Your task to perform on an android device: turn off javascript in the chrome app Image 0: 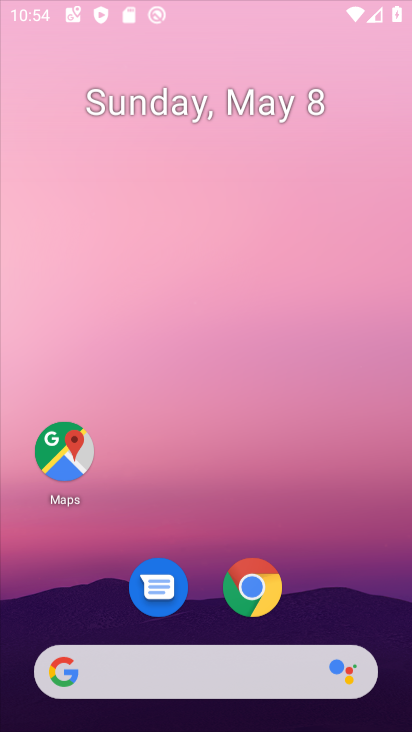
Step 0: click (342, 433)
Your task to perform on an android device: turn off javascript in the chrome app Image 1: 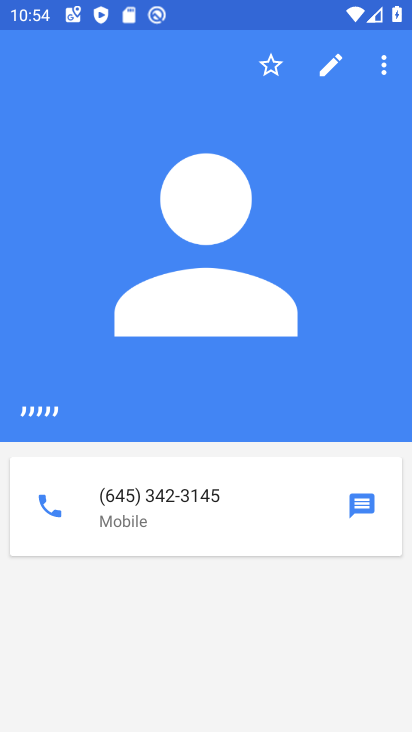
Step 1: press home button
Your task to perform on an android device: turn off javascript in the chrome app Image 2: 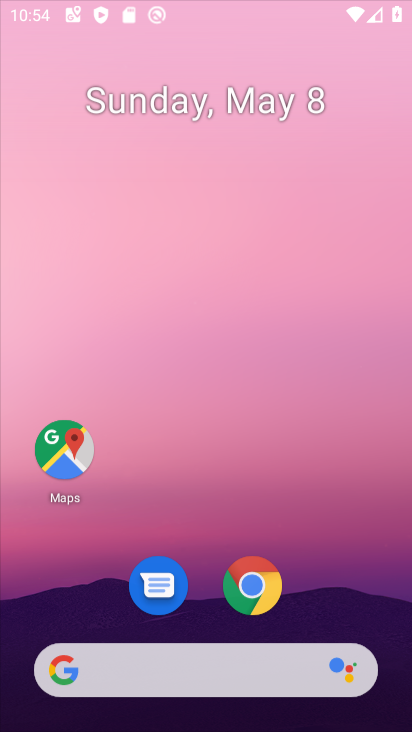
Step 2: press home button
Your task to perform on an android device: turn off javascript in the chrome app Image 3: 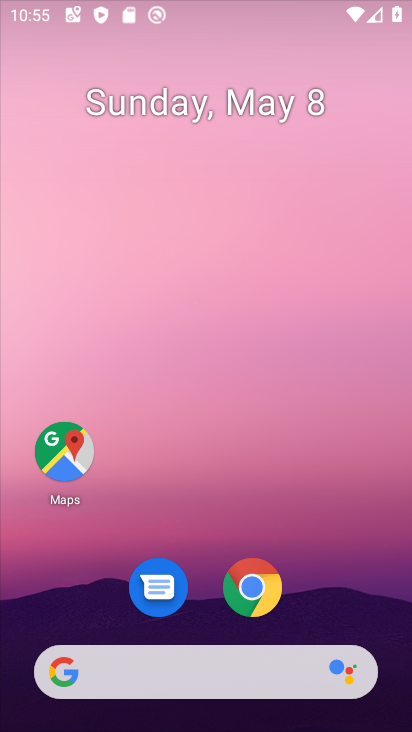
Step 3: press home button
Your task to perform on an android device: turn off javascript in the chrome app Image 4: 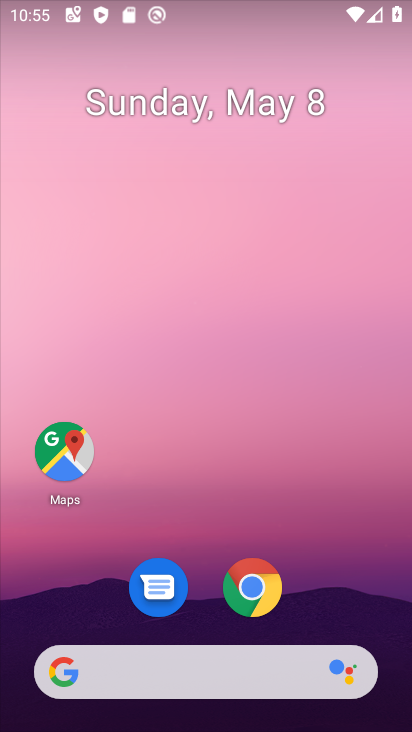
Step 4: drag from (377, 609) to (147, 10)
Your task to perform on an android device: turn off javascript in the chrome app Image 5: 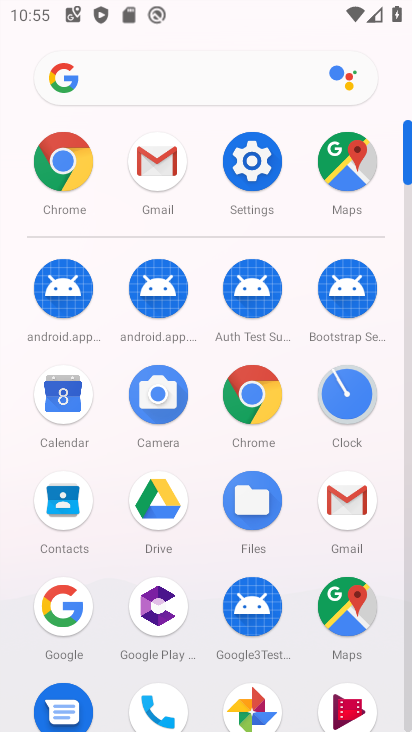
Step 5: click (67, 154)
Your task to perform on an android device: turn off javascript in the chrome app Image 6: 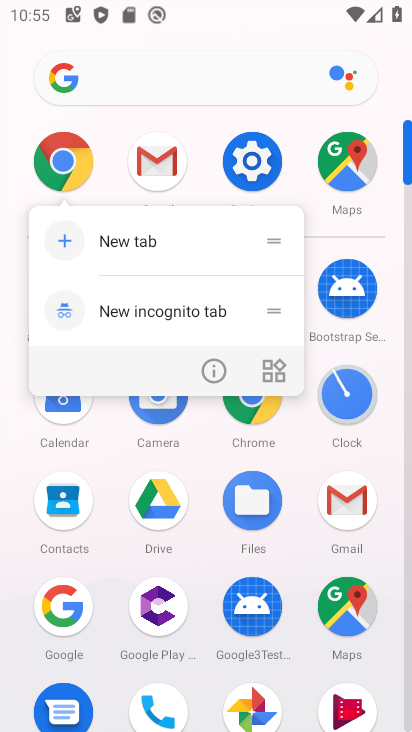
Step 6: click (67, 154)
Your task to perform on an android device: turn off javascript in the chrome app Image 7: 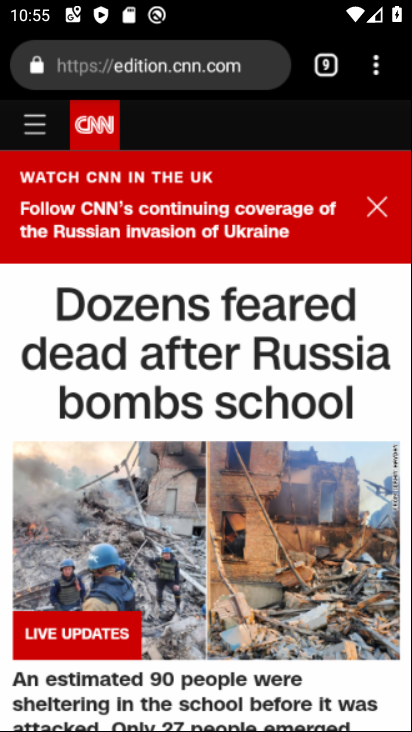
Step 7: click (76, 165)
Your task to perform on an android device: turn off javascript in the chrome app Image 8: 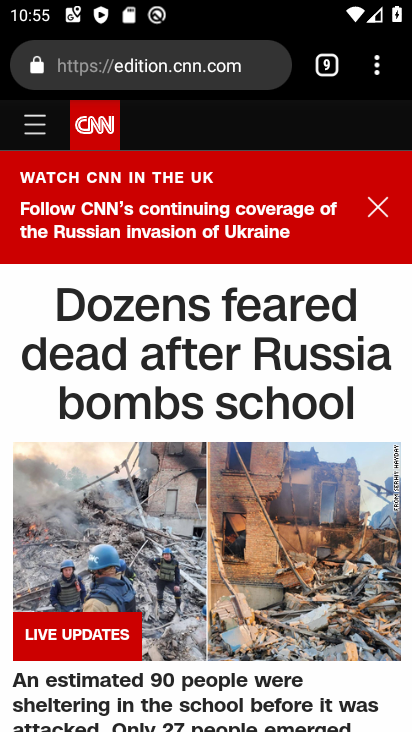
Step 8: drag from (378, 64) to (157, 640)
Your task to perform on an android device: turn off javascript in the chrome app Image 9: 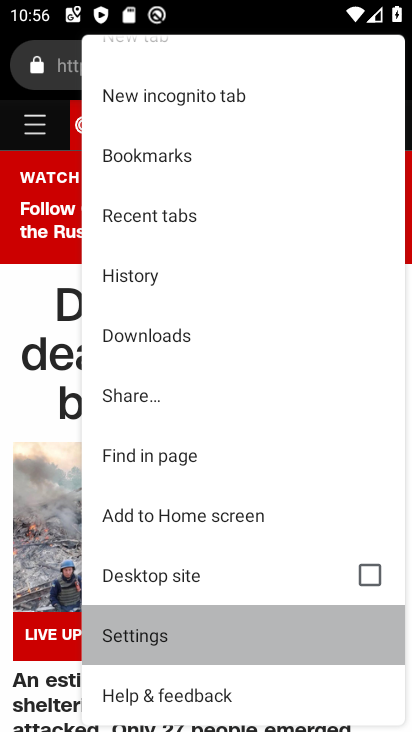
Step 9: click (142, 637)
Your task to perform on an android device: turn off javascript in the chrome app Image 10: 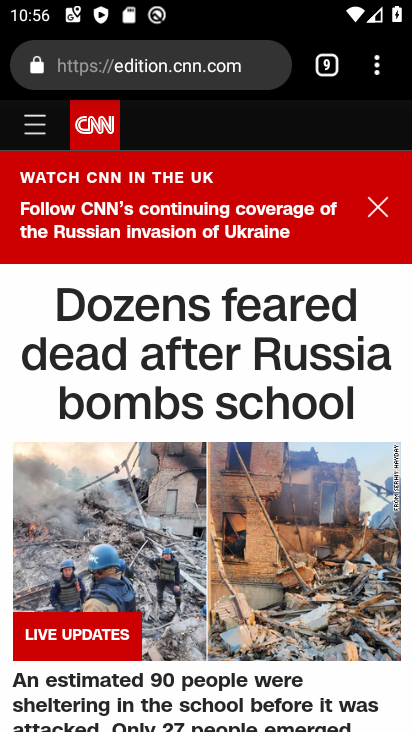
Step 10: click (142, 637)
Your task to perform on an android device: turn off javascript in the chrome app Image 11: 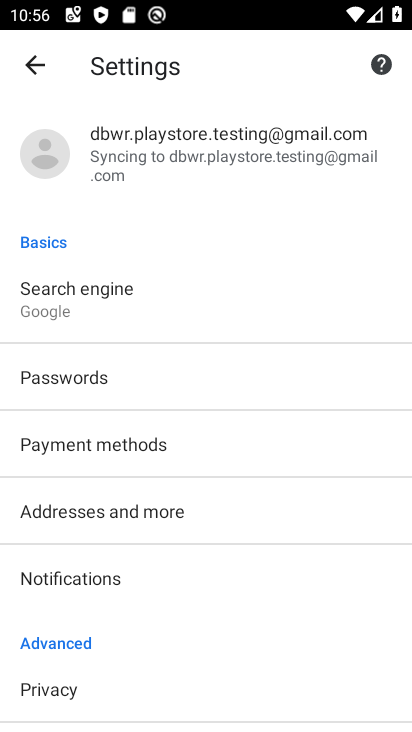
Step 11: drag from (163, 652) to (132, 73)
Your task to perform on an android device: turn off javascript in the chrome app Image 12: 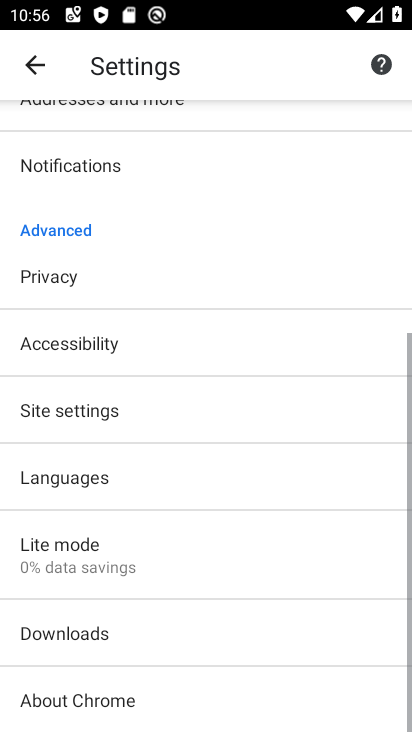
Step 12: drag from (204, 446) to (221, 120)
Your task to perform on an android device: turn off javascript in the chrome app Image 13: 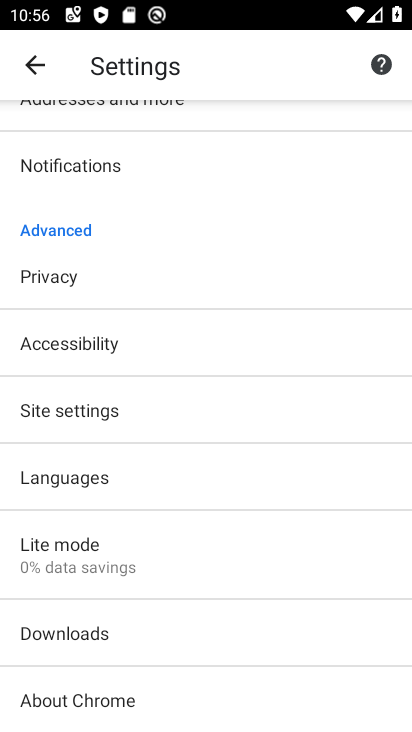
Step 13: click (61, 412)
Your task to perform on an android device: turn off javascript in the chrome app Image 14: 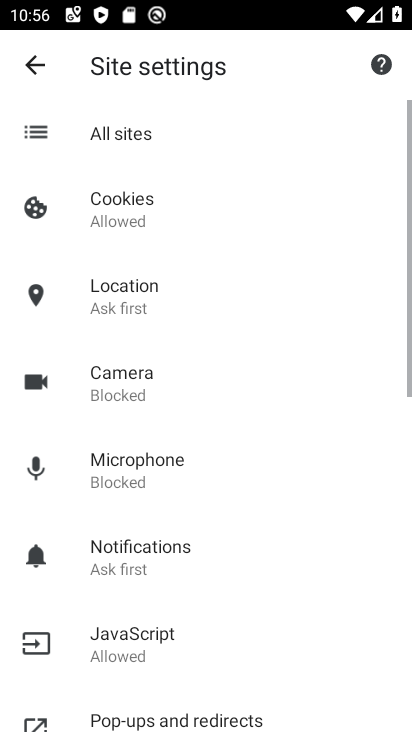
Step 14: click (59, 409)
Your task to perform on an android device: turn off javascript in the chrome app Image 15: 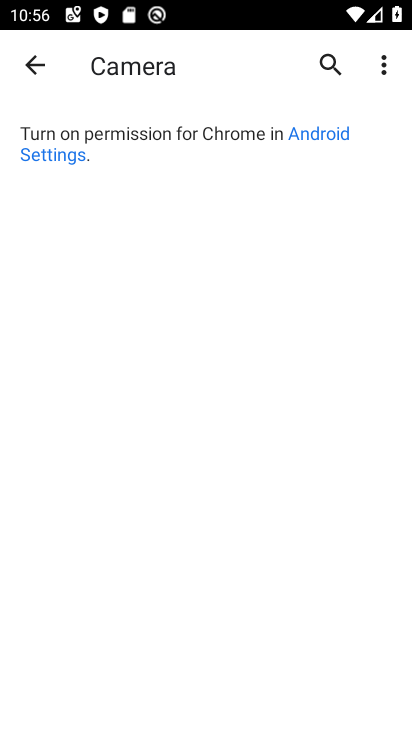
Step 15: click (7, 48)
Your task to perform on an android device: turn off javascript in the chrome app Image 16: 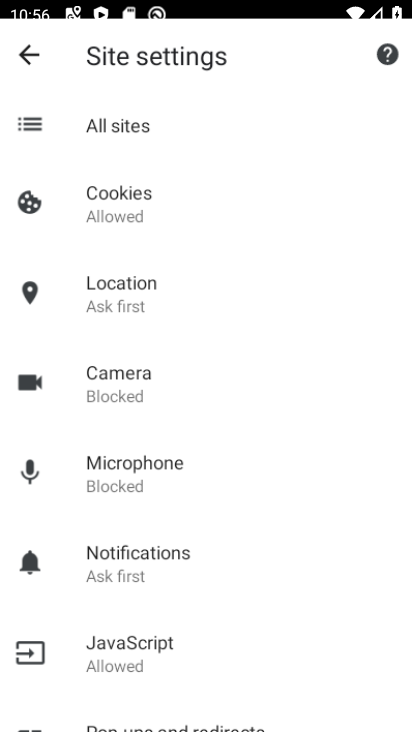
Step 16: click (28, 60)
Your task to perform on an android device: turn off javascript in the chrome app Image 17: 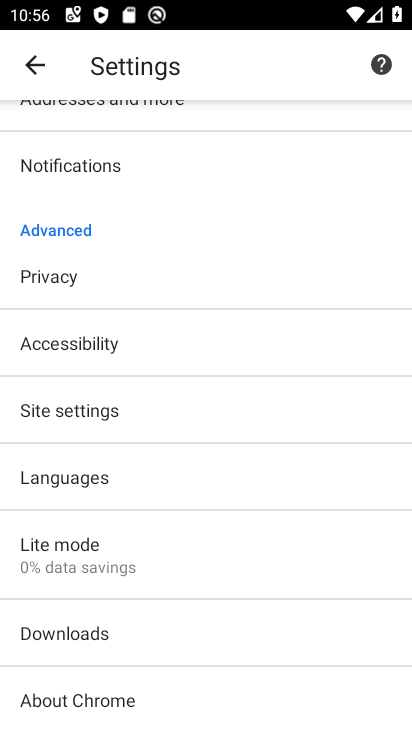
Step 17: click (73, 391)
Your task to perform on an android device: turn off javascript in the chrome app Image 18: 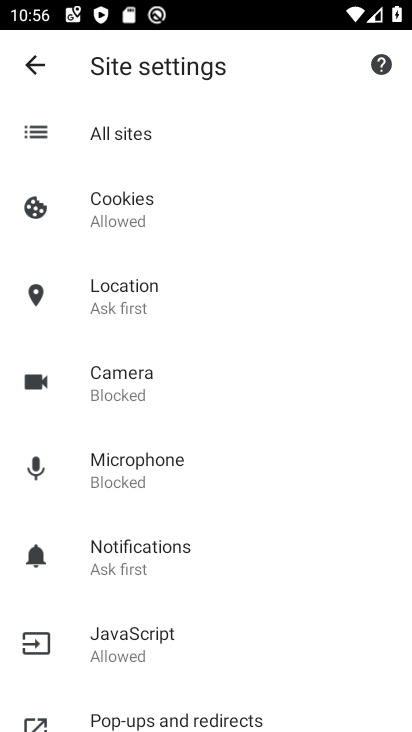
Step 18: click (119, 631)
Your task to perform on an android device: turn off javascript in the chrome app Image 19: 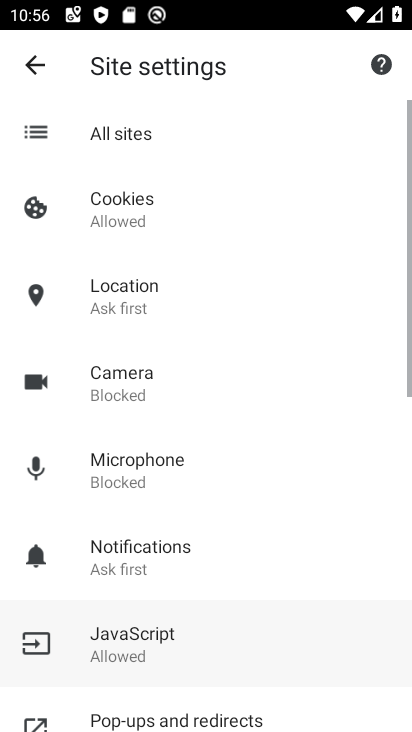
Step 19: click (119, 632)
Your task to perform on an android device: turn off javascript in the chrome app Image 20: 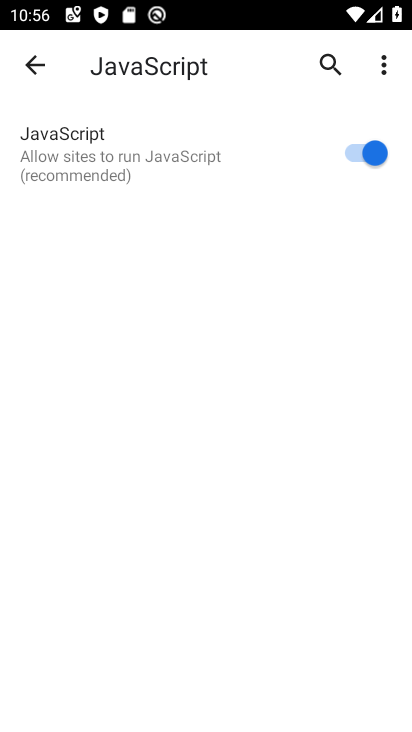
Step 20: click (360, 147)
Your task to perform on an android device: turn off javascript in the chrome app Image 21: 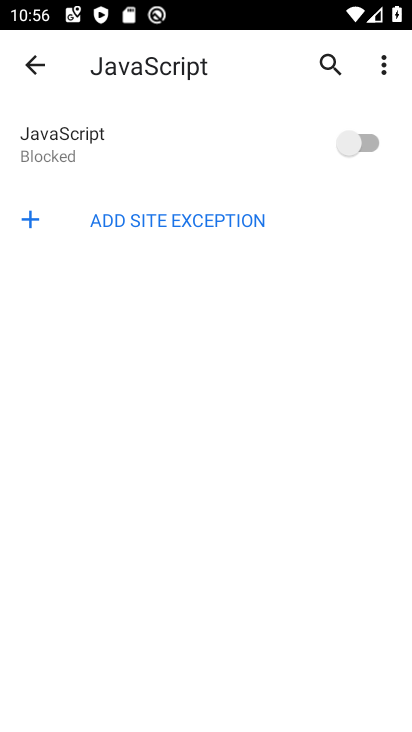
Step 21: task complete